Your task to perform on an android device: toggle show notifications on the lock screen Image 0: 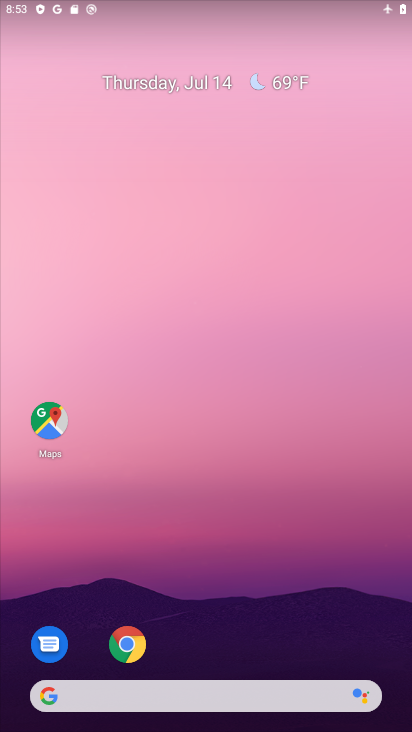
Step 0: drag from (188, 669) to (217, 101)
Your task to perform on an android device: toggle show notifications on the lock screen Image 1: 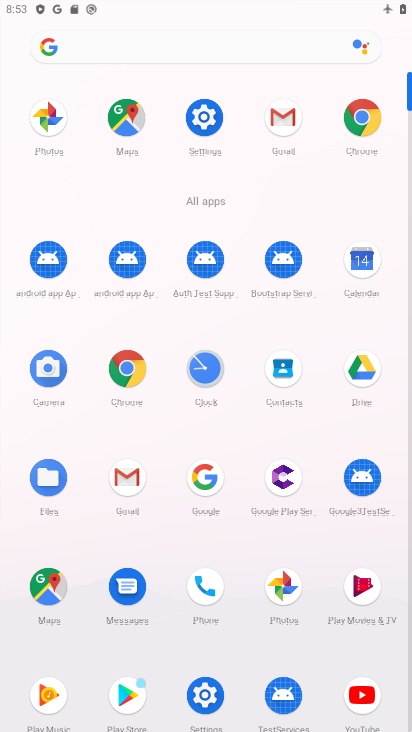
Step 1: click (203, 111)
Your task to perform on an android device: toggle show notifications on the lock screen Image 2: 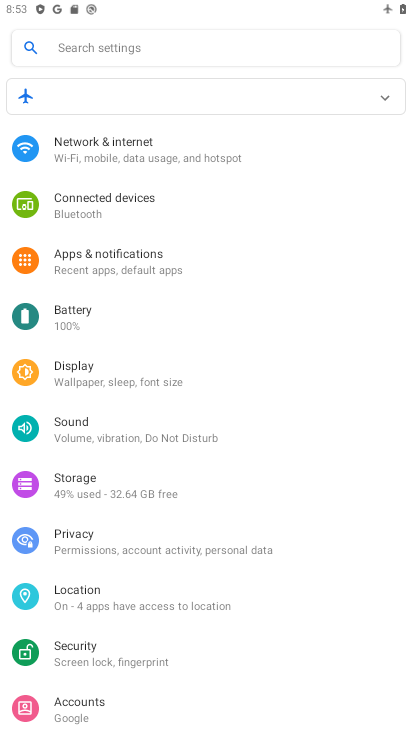
Step 2: click (225, 275)
Your task to perform on an android device: toggle show notifications on the lock screen Image 3: 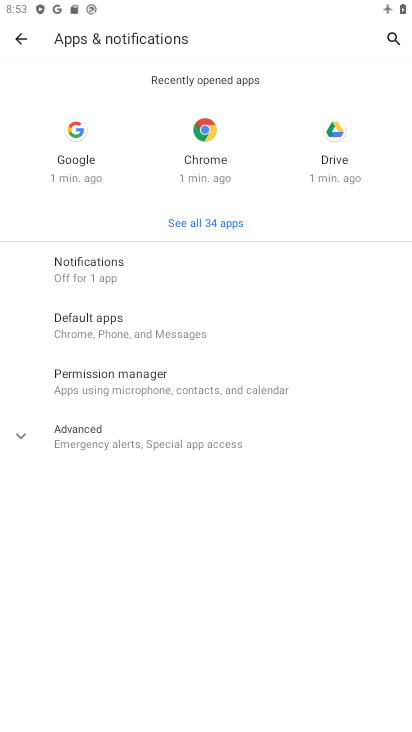
Step 3: click (67, 263)
Your task to perform on an android device: toggle show notifications on the lock screen Image 4: 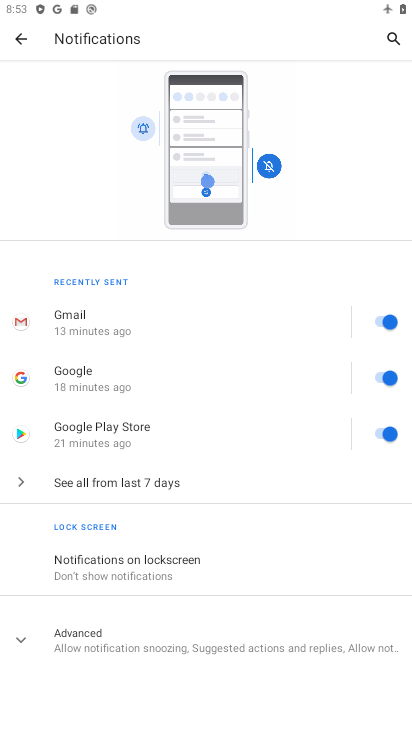
Step 4: click (214, 585)
Your task to perform on an android device: toggle show notifications on the lock screen Image 5: 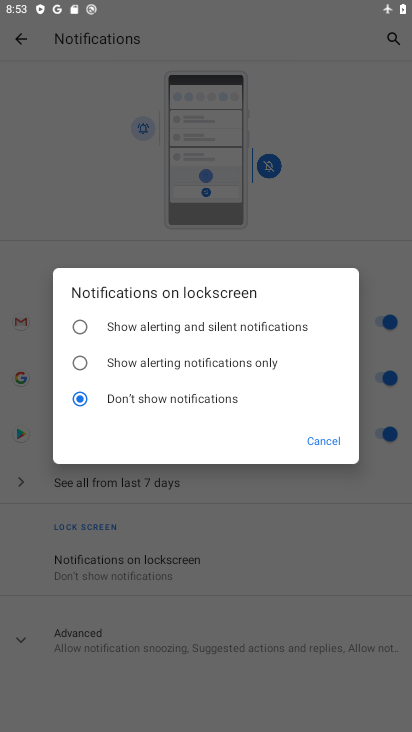
Step 5: click (197, 334)
Your task to perform on an android device: toggle show notifications on the lock screen Image 6: 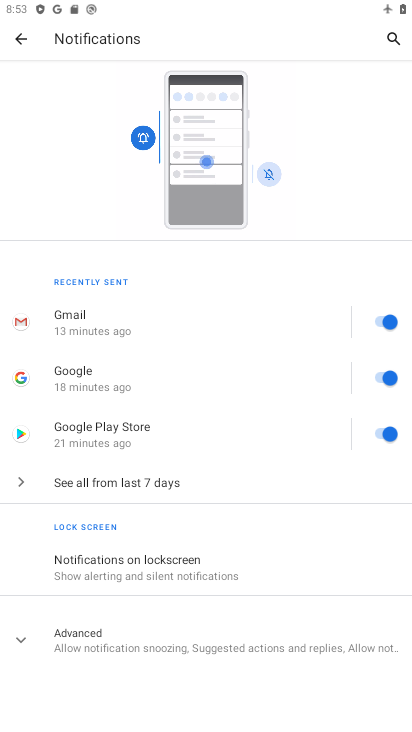
Step 6: task complete